Your task to perform on an android device: Search for vegetarian restaurants on Maps Image 0: 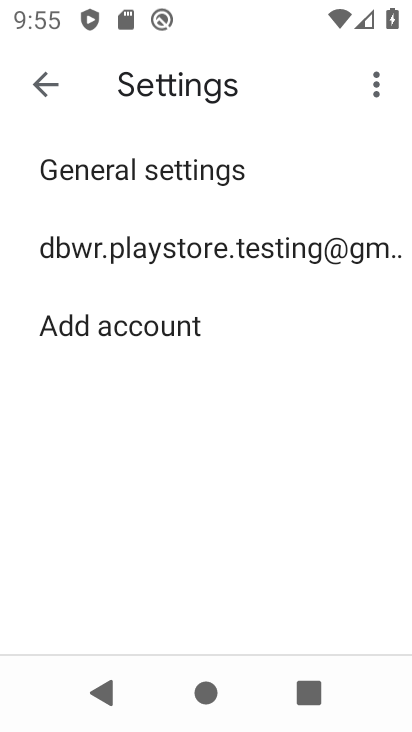
Step 0: drag from (317, 545) to (305, 143)
Your task to perform on an android device: Search for vegetarian restaurants on Maps Image 1: 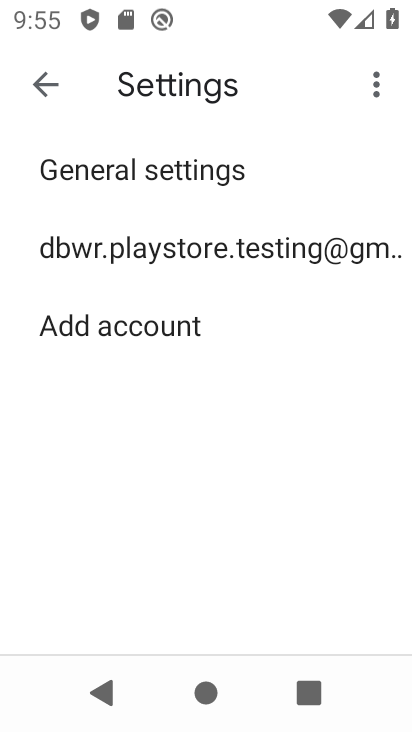
Step 1: press home button
Your task to perform on an android device: Search for vegetarian restaurants on Maps Image 2: 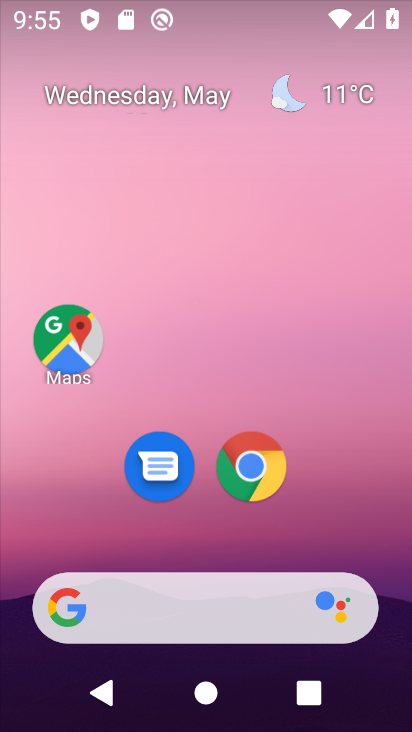
Step 2: drag from (315, 519) to (270, 92)
Your task to perform on an android device: Search for vegetarian restaurants on Maps Image 3: 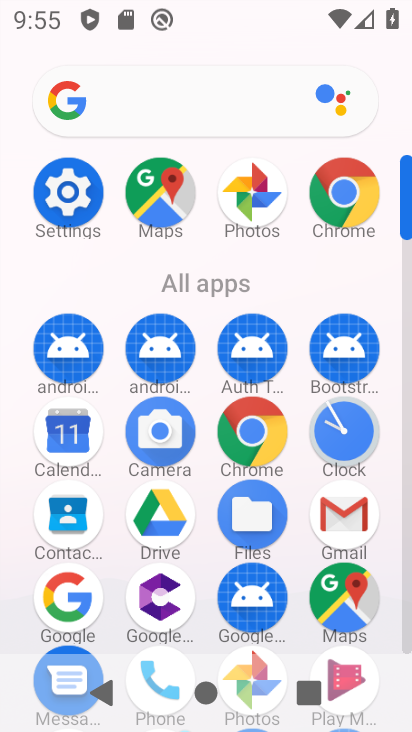
Step 3: click (153, 201)
Your task to perform on an android device: Search for vegetarian restaurants on Maps Image 4: 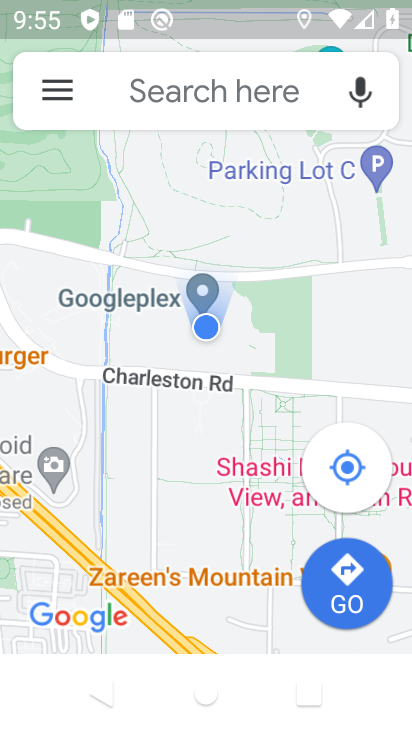
Step 4: click (224, 101)
Your task to perform on an android device: Search for vegetarian restaurants on Maps Image 5: 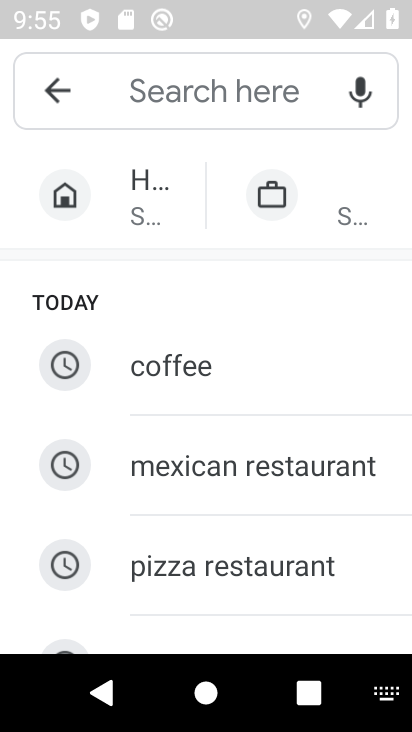
Step 5: drag from (243, 552) to (252, 198)
Your task to perform on an android device: Search for vegetarian restaurants on Maps Image 6: 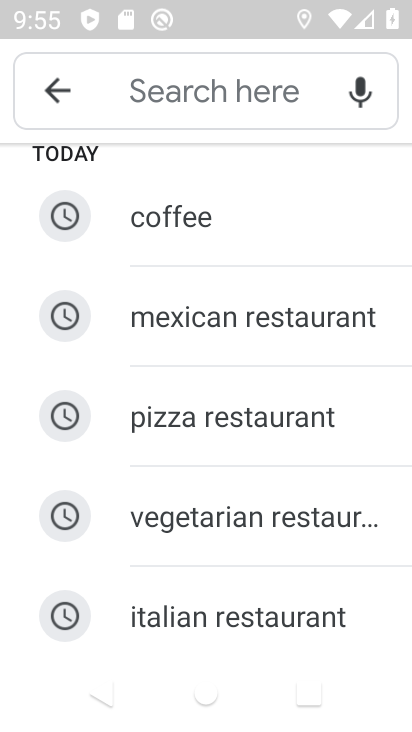
Step 6: click (224, 519)
Your task to perform on an android device: Search for vegetarian restaurants on Maps Image 7: 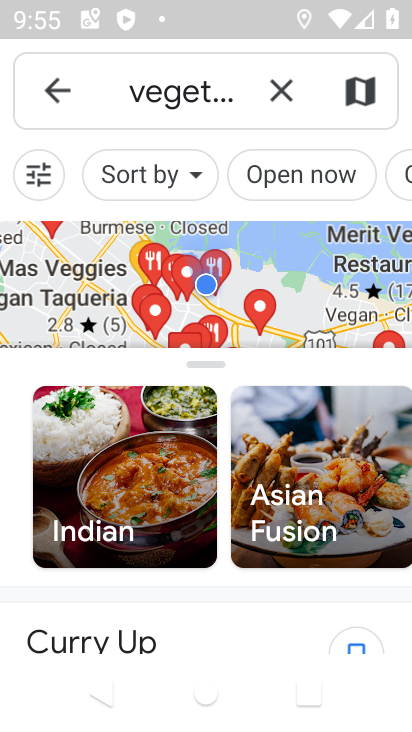
Step 7: task complete